Your task to perform on an android device: What's the weather today? Image 0: 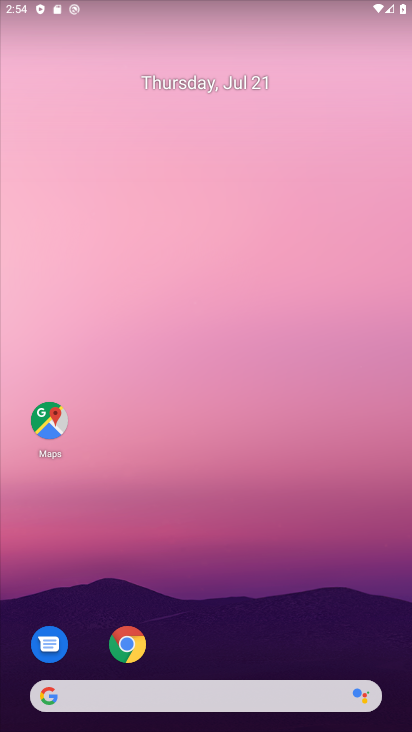
Step 0: drag from (196, 317) to (145, 117)
Your task to perform on an android device: What's the weather today? Image 1: 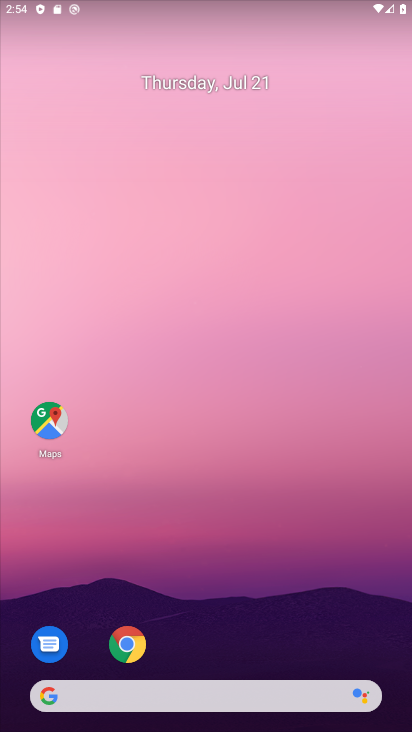
Step 1: drag from (236, 497) to (213, 114)
Your task to perform on an android device: What's the weather today? Image 2: 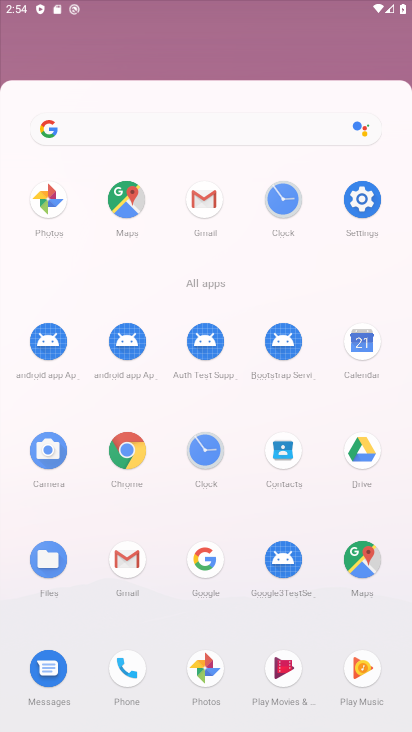
Step 2: drag from (247, 638) to (224, 200)
Your task to perform on an android device: What's the weather today? Image 3: 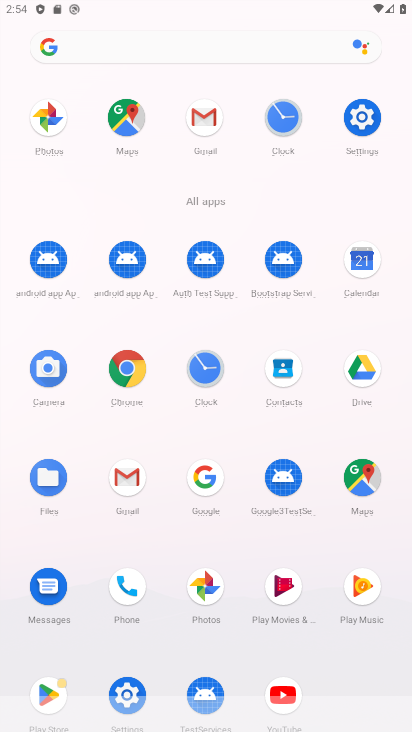
Step 3: click (125, 365)
Your task to perform on an android device: What's the weather today? Image 4: 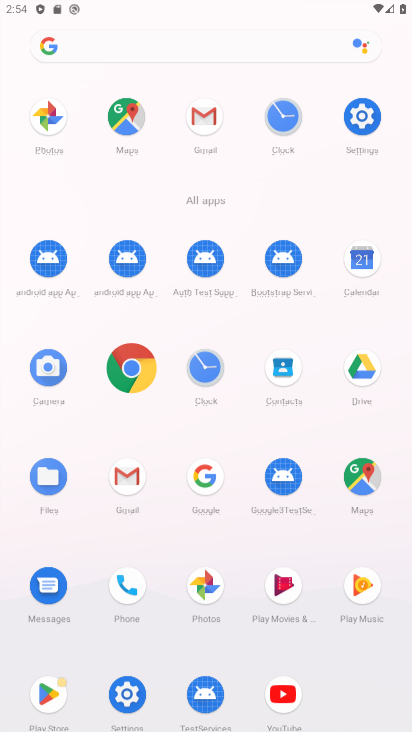
Step 4: click (134, 357)
Your task to perform on an android device: What's the weather today? Image 5: 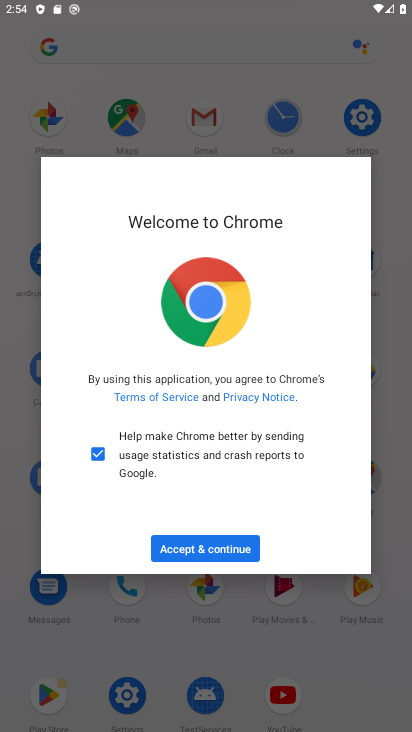
Step 5: click (200, 554)
Your task to perform on an android device: What's the weather today? Image 6: 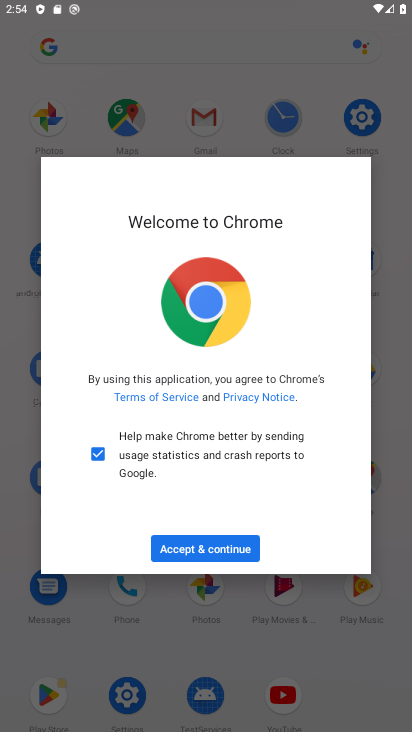
Step 6: click (197, 549)
Your task to perform on an android device: What's the weather today? Image 7: 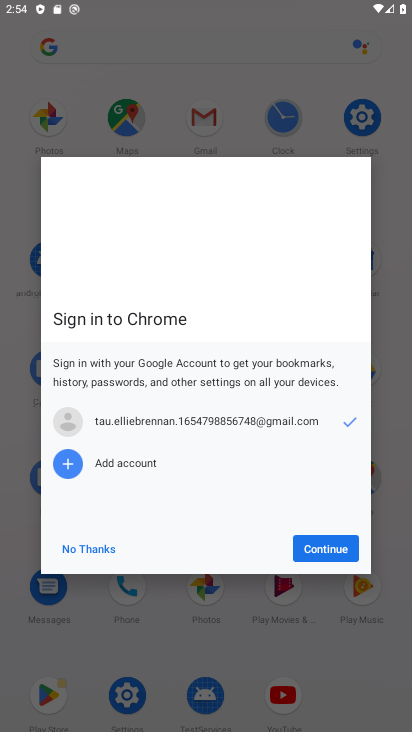
Step 7: click (204, 549)
Your task to perform on an android device: What's the weather today? Image 8: 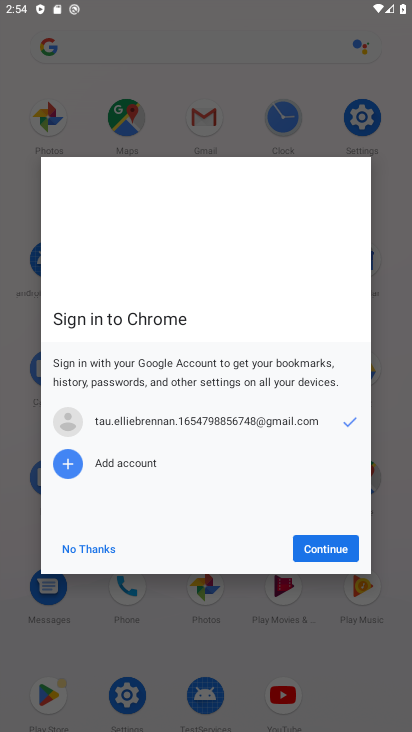
Step 8: click (209, 555)
Your task to perform on an android device: What's the weather today? Image 9: 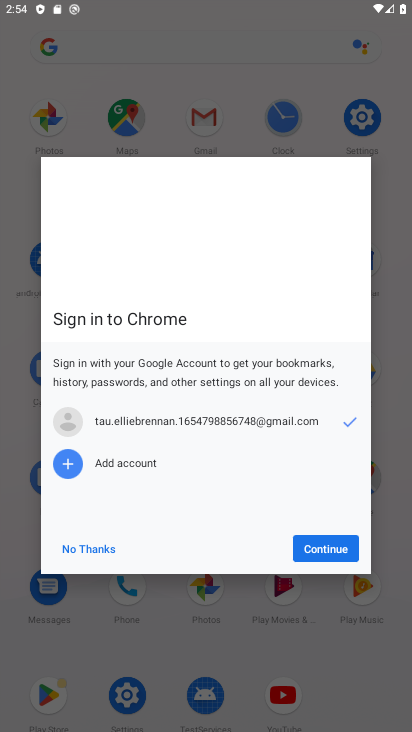
Step 9: click (345, 551)
Your task to perform on an android device: What's the weather today? Image 10: 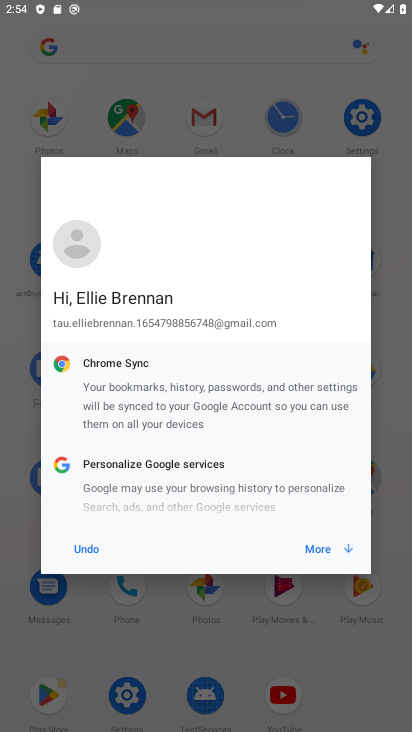
Step 10: click (70, 554)
Your task to perform on an android device: What's the weather today? Image 11: 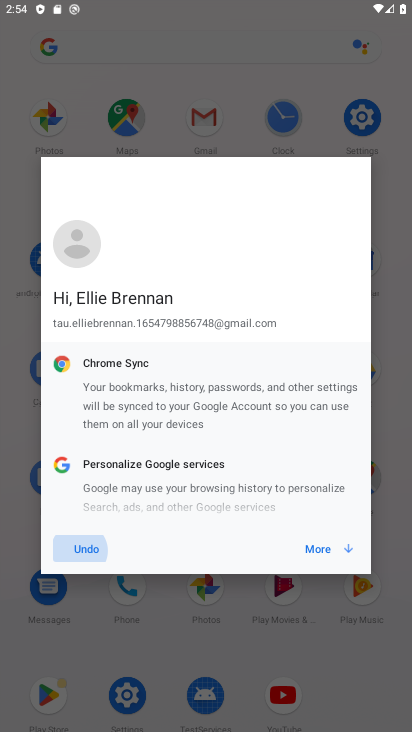
Step 11: click (71, 552)
Your task to perform on an android device: What's the weather today? Image 12: 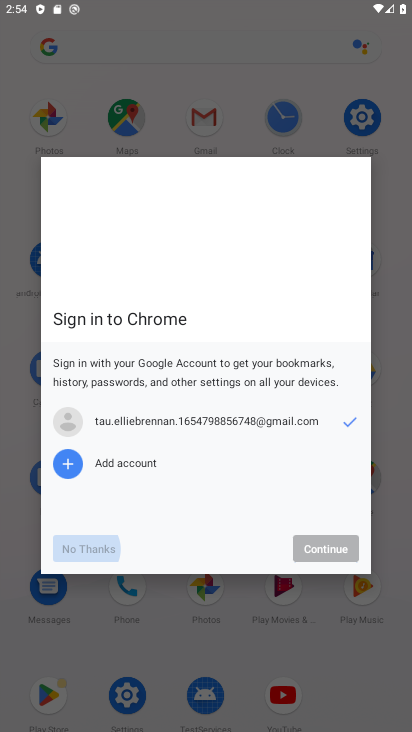
Step 12: click (78, 546)
Your task to perform on an android device: What's the weather today? Image 13: 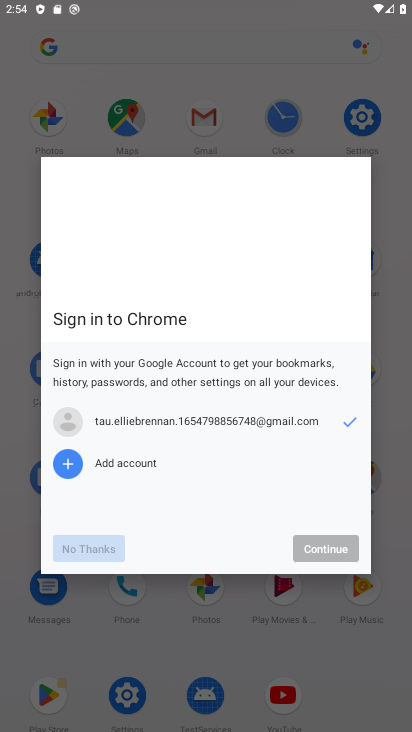
Step 13: click (79, 546)
Your task to perform on an android device: What's the weather today? Image 14: 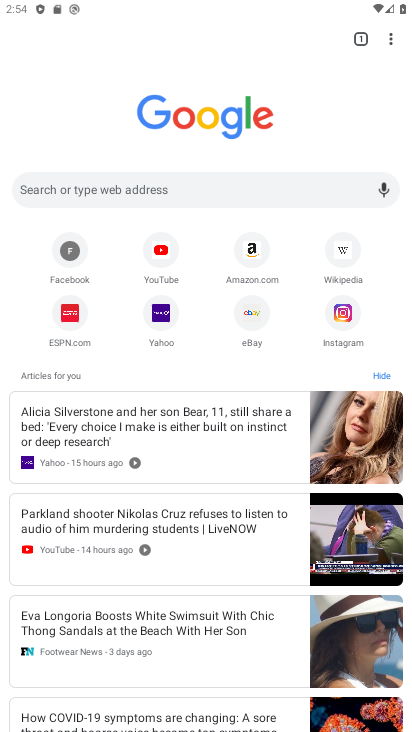
Step 14: click (58, 187)
Your task to perform on an android device: What's the weather today? Image 15: 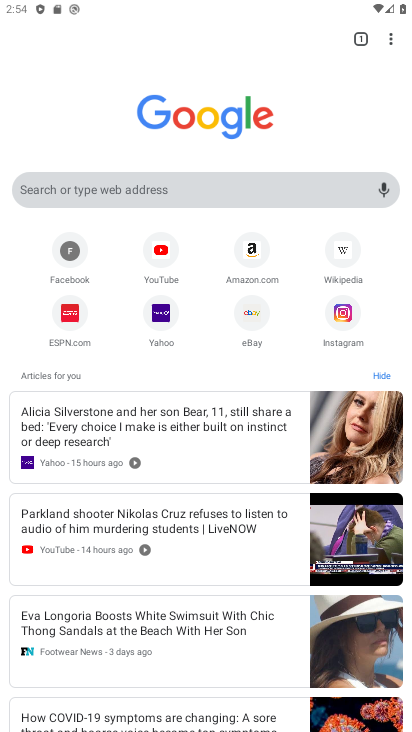
Step 15: click (58, 185)
Your task to perform on an android device: What's the weather today? Image 16: 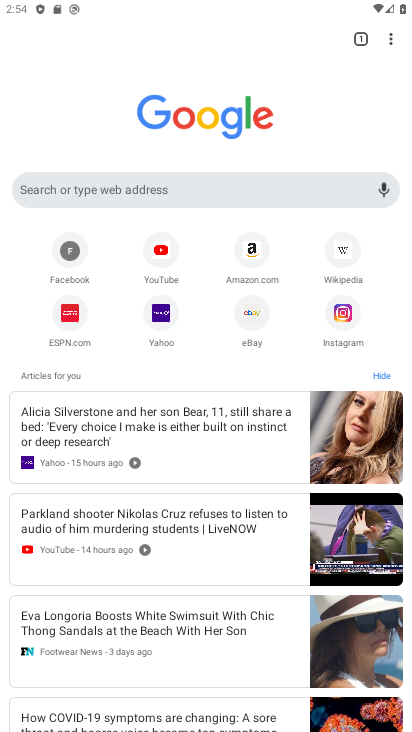
Step 16: click (56, 180)
Your task to perform on an android device: What's the weather today? Image 17: 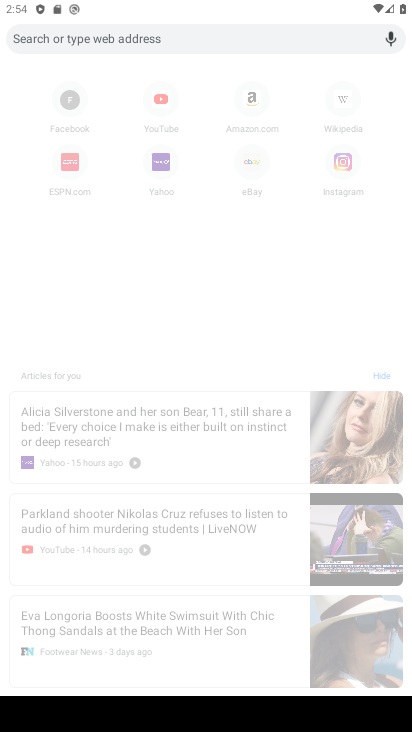
Step 17: type "weather?"
Your task to perform on an android device: What's the weather today? Image 18: 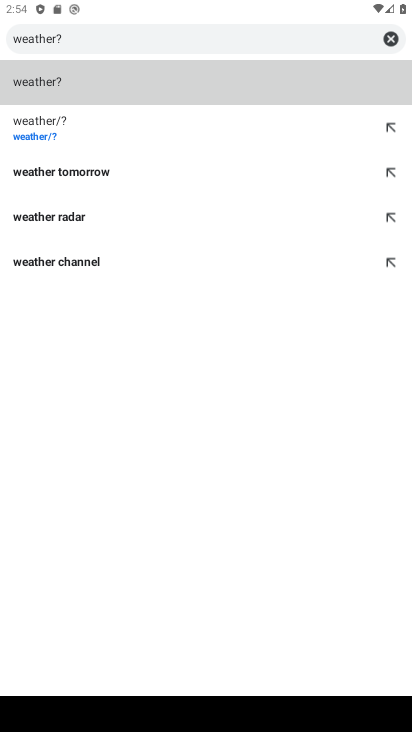
Step 18: click (67, 85)
Your task to perform on an android device: What's the weather today? Image 19: 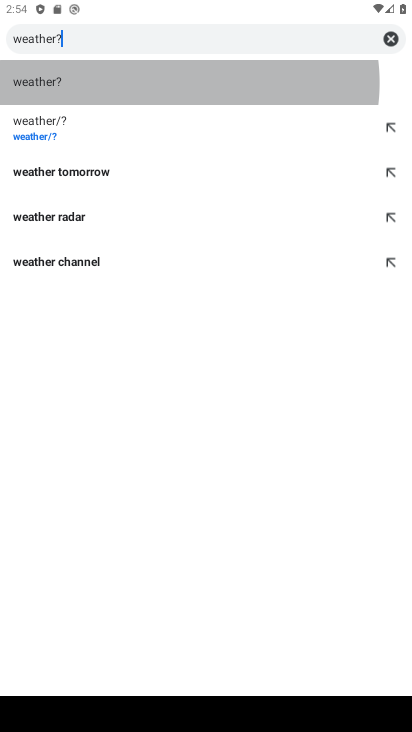
Step 19: click (31, 87)
Your task to perform on an android device: What's the weather today? Image 20: 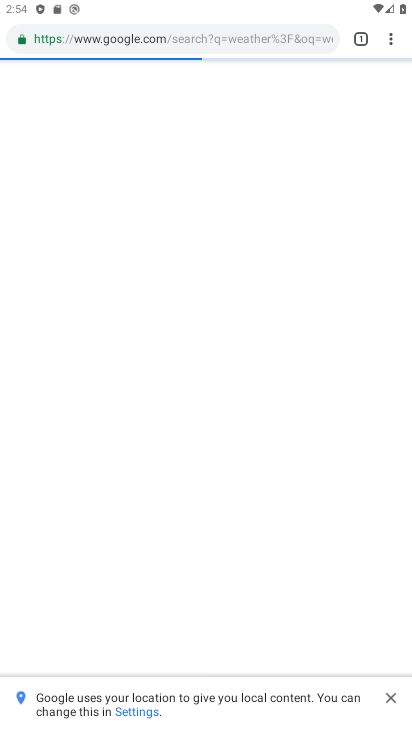
Step 20: task complete